Your task to perform on an android device: find snoozed emails in the gmail app Image 0: 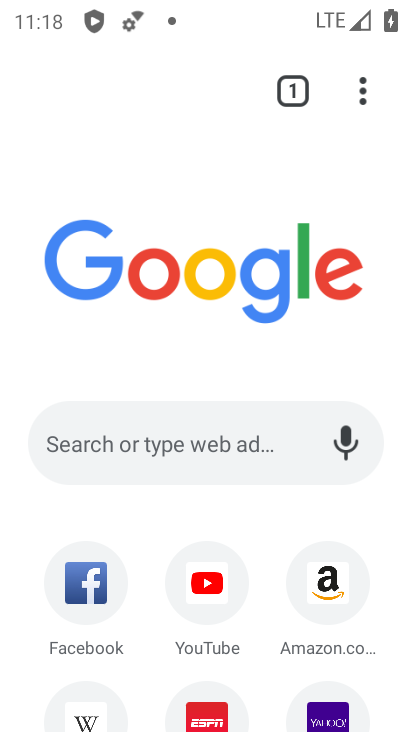
Step 0: press home button
Your task to perform on an android device: find snoozed emails in the gmail app Image 1: 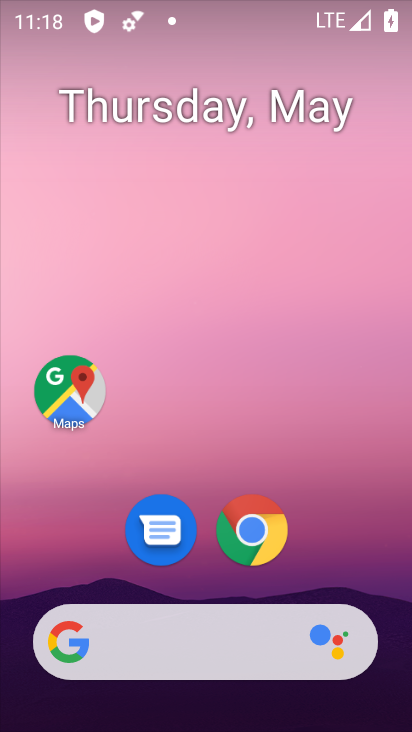
Step 1: drag from (146, 715) to (260, 111)
Your task to perform on an android device: find snoozed emails in the gmail app Image 2: 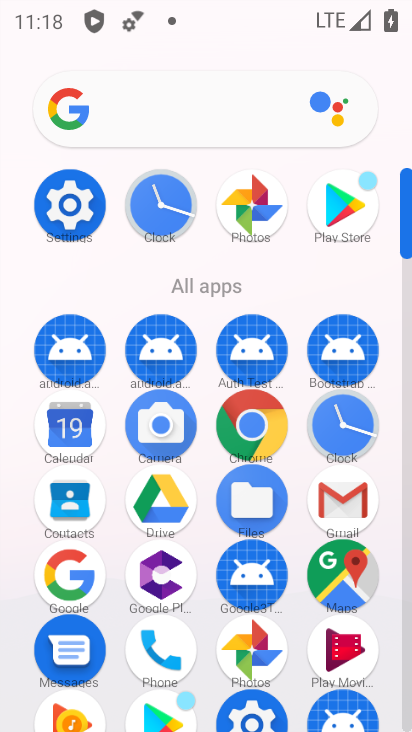
Step 2: click (344, 490)
Your task to perform on an android device: find snoozed emails in the gmail app Image 3: 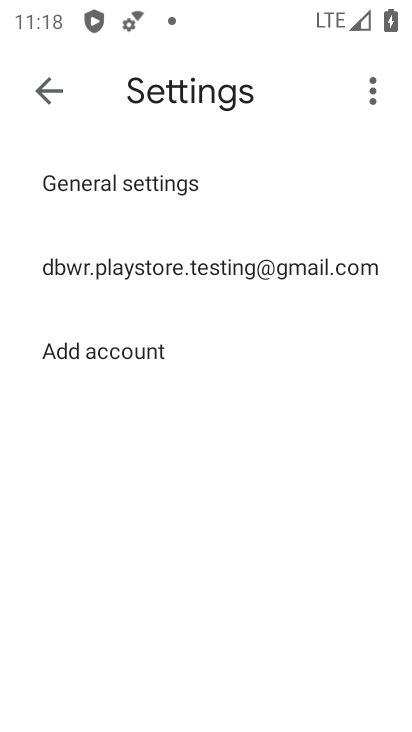
Step 3: click (46, 99)
Your task to perform on an android device: find snoozed emails in the gmail app Image 4: 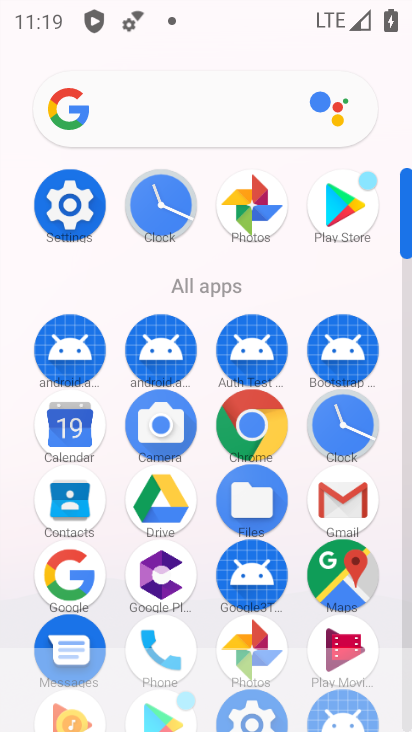
Step 4: click (346, 499)
Your task to perform on an android device: find snoozed emails in the gmail app Image 5: 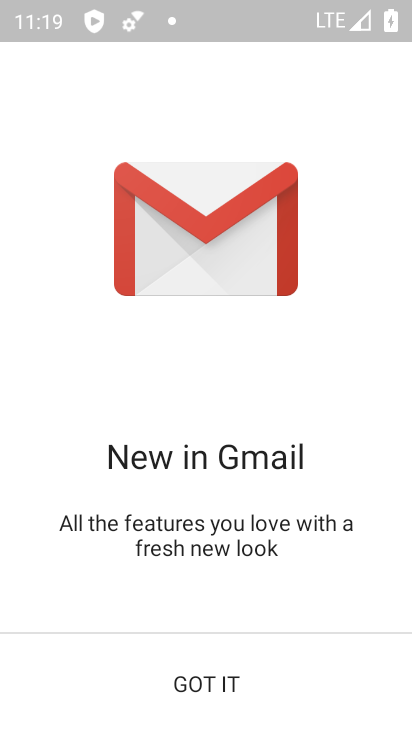
Step 5: click (163, 687)
Your task to perform on an android device: find snoozed emails in the gmail app Image 6: 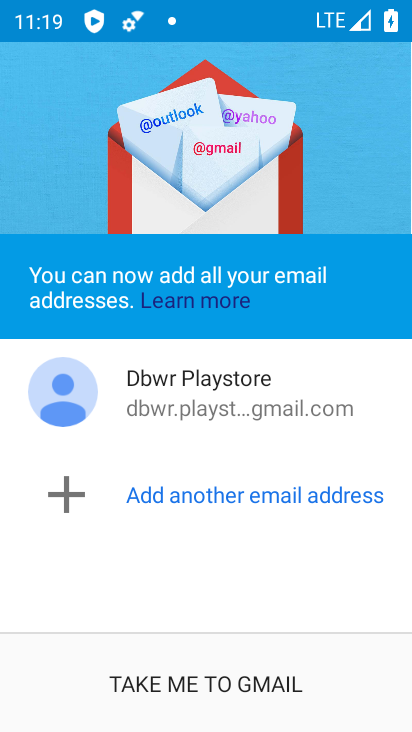
Step 6: click (173, 695)
Your task to perform on an android device: find snoozed emails in the gmail app Image 7: 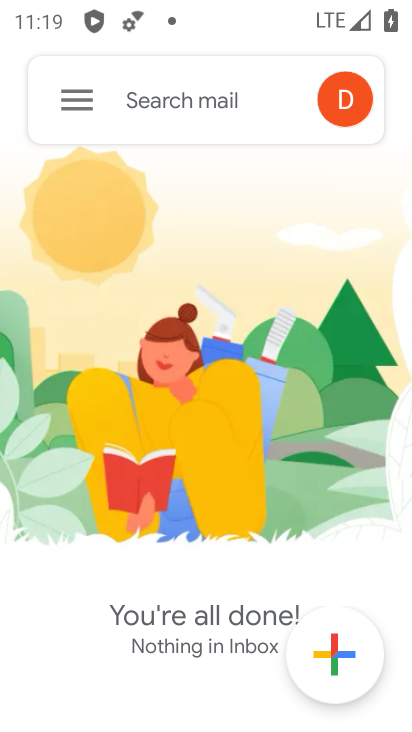
Step 7: click (81, 96)
Your task to perform on an android device: find snoozed emails in the gmail app Image 8: 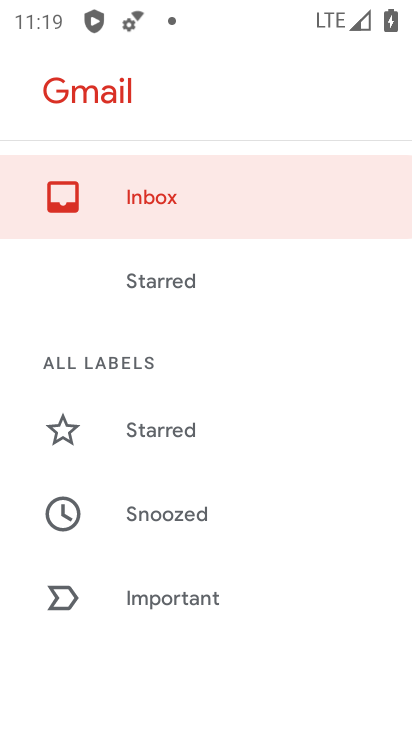
Step 8: click (193, 506)
Your task to perform on an android device: find snoozed emails in the gmail app Image 9: 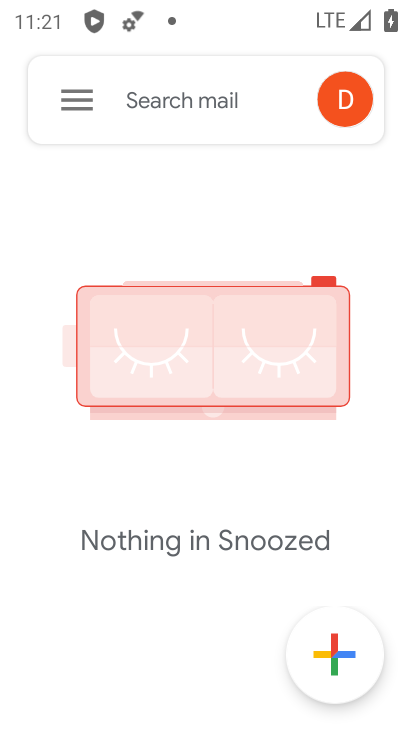
Step 9: task complete